Your task to perform on an android device: Go to Yahoo.com Image 0: 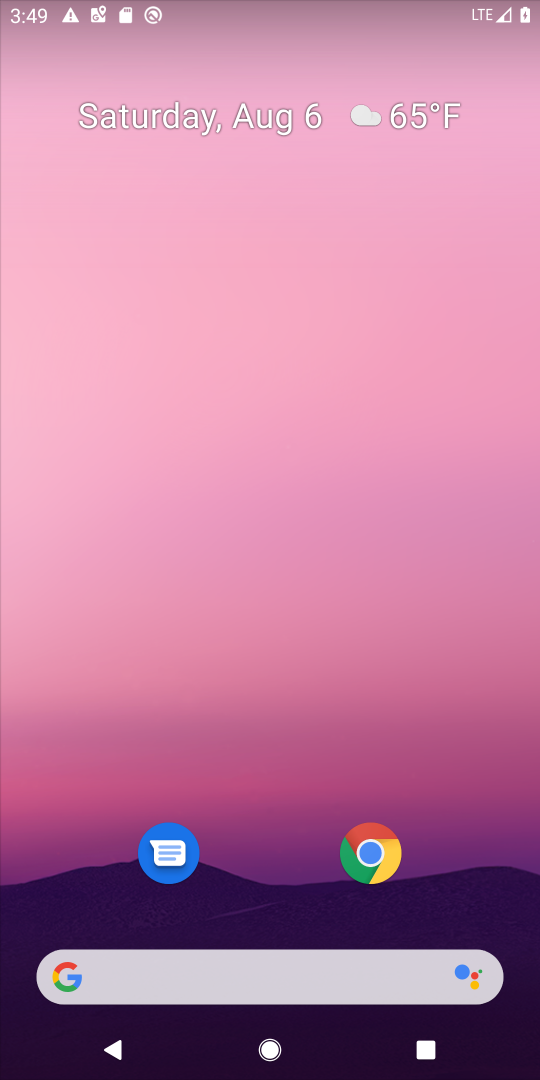
Step 0: click (385, 859)
Your task to perform on an android device: Go to Yahoo.com Image 1: 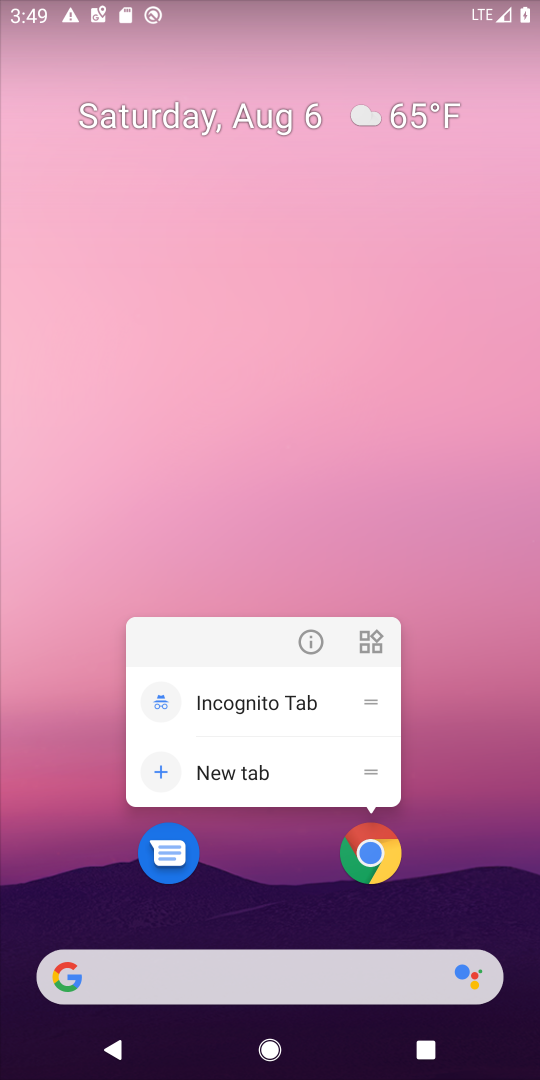
Step 1: click (376, 843)
Your task to perform on an android device: Go to Yahoo.com Image 2: 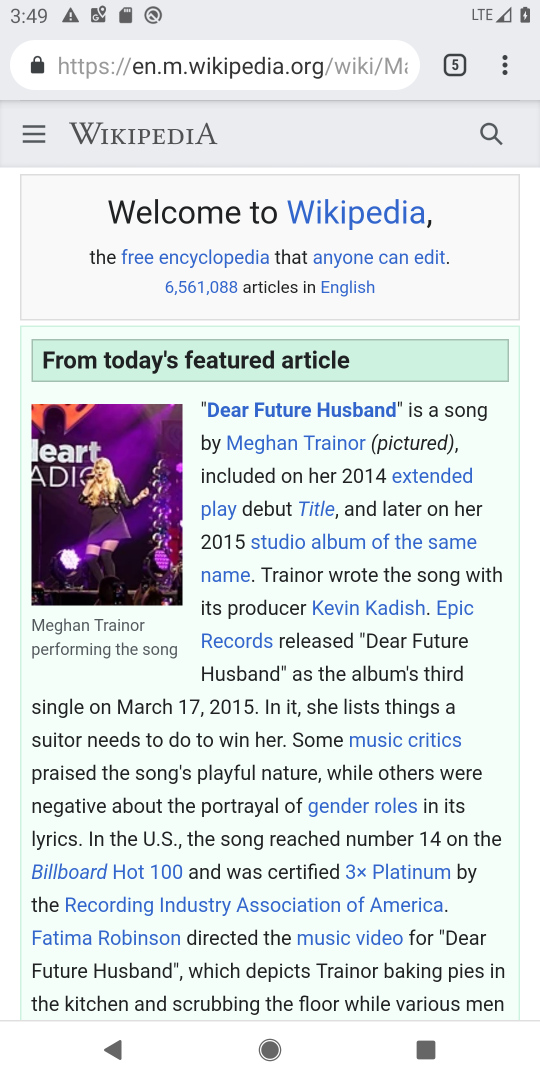
Step 2: click (441, 58)
Your task to perform on an android device: Go to Yahoo.com Image 3: 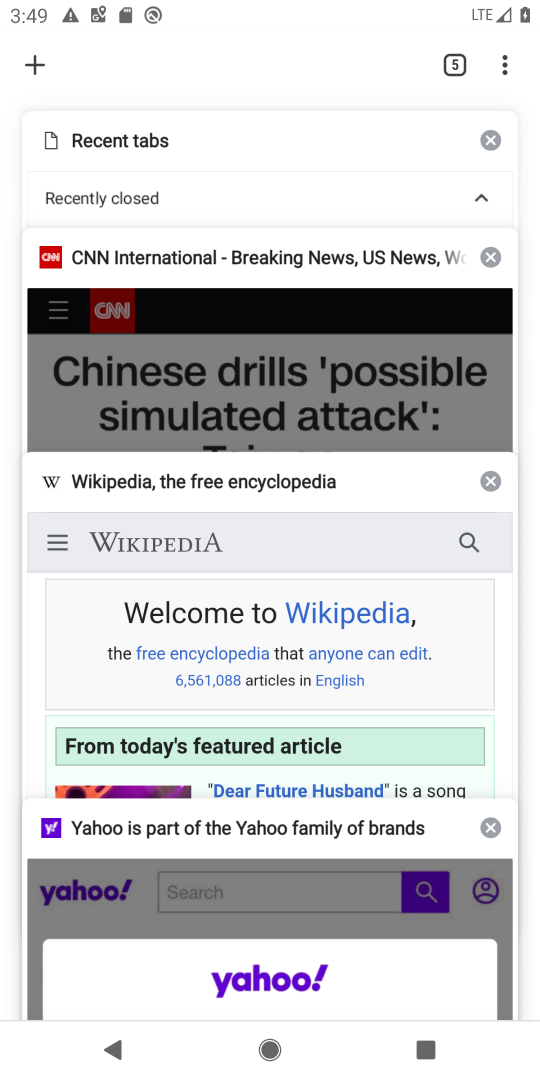
Step 3: click (192, 121)
Your task to perform on an android device: Go to Yahoo.com Image 4: 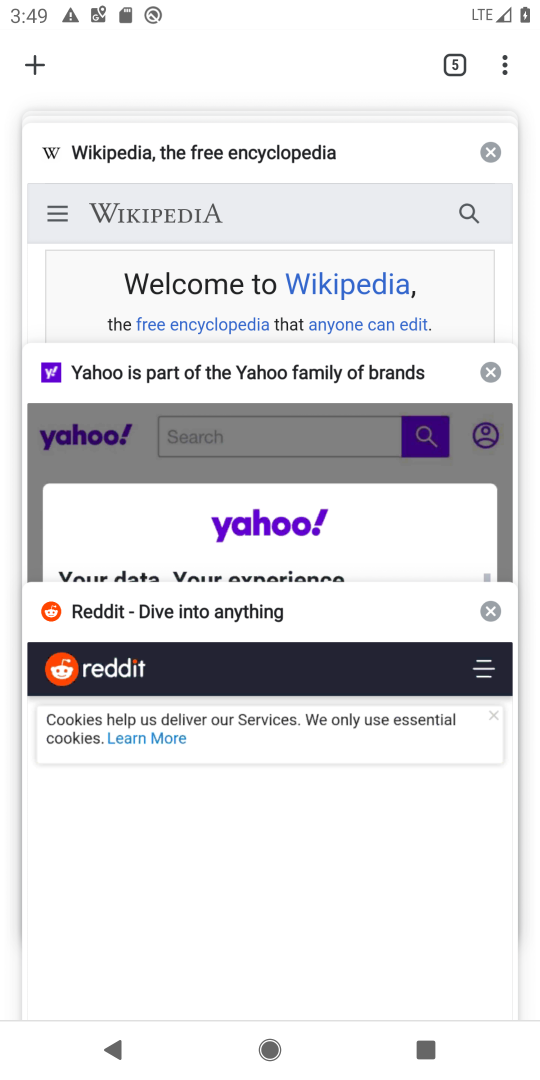
Step 4: click (203, 370)
Your task to perform on an android device: Go to Yahoo.com Image 5: 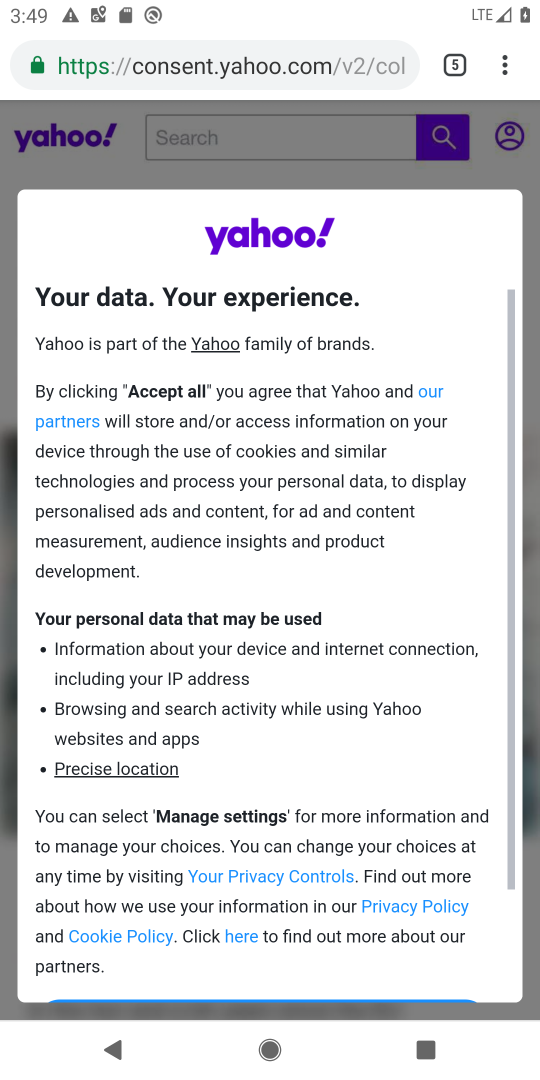
Step 5: task complete